Your task to perform on an android device: Go to Wikipedia Image 0: 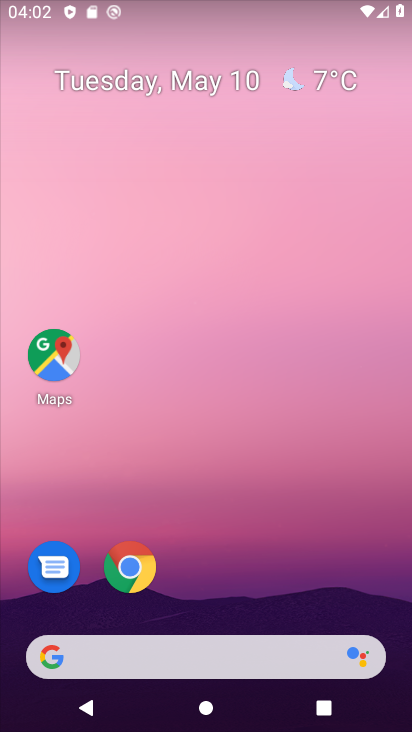
Step 0: click (129, 569)
Your task to perform on an android device: Go to Wikipedia Image 1: 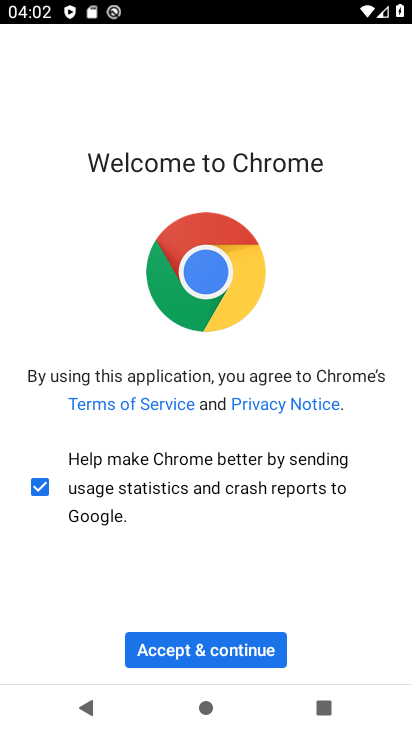
Step 1: click (197, 656)
Your task to perform on an android device: Go to Wikipedia Image 2: 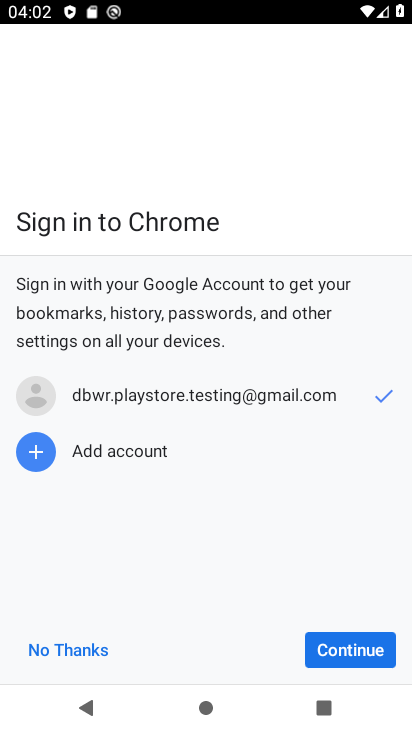
Step 2: click (334, 648)
Your task to perform on an android device: Go to Wikipedia Image 3: 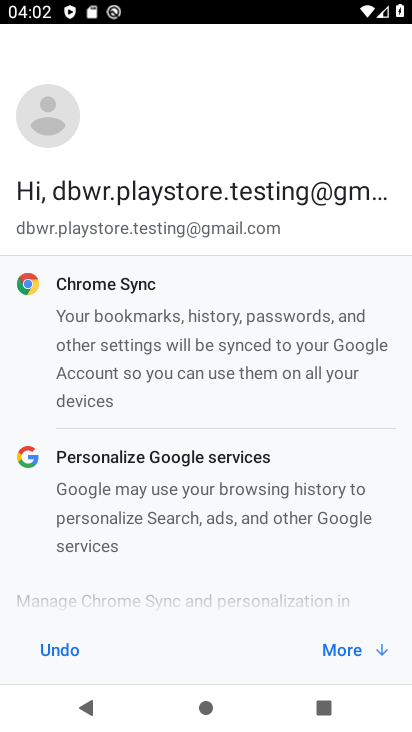
Step 3: click (334, 648)
Your task to perform on an android device: Go to Wikipedia Image 4: 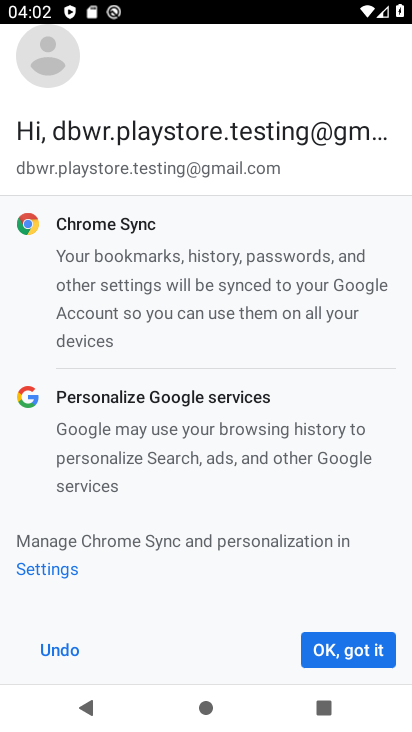
Step 4: click (334, 648)
Your task to perform on an android device: Go to Wikipedia Image 5: 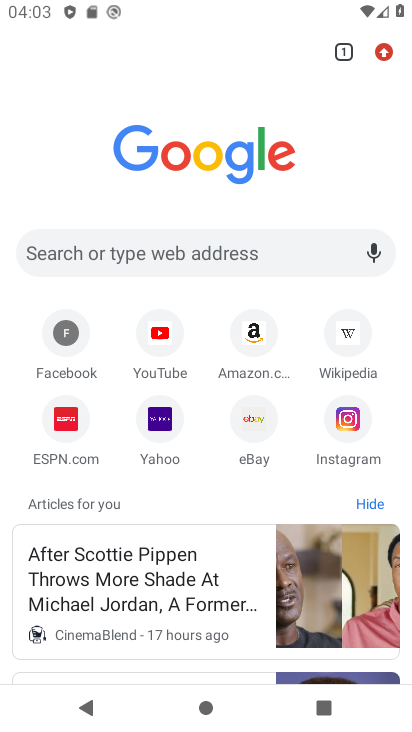
Step 5: click (352, 328)
Your task to perform on an android device: Go to Wikipedia Image 6: 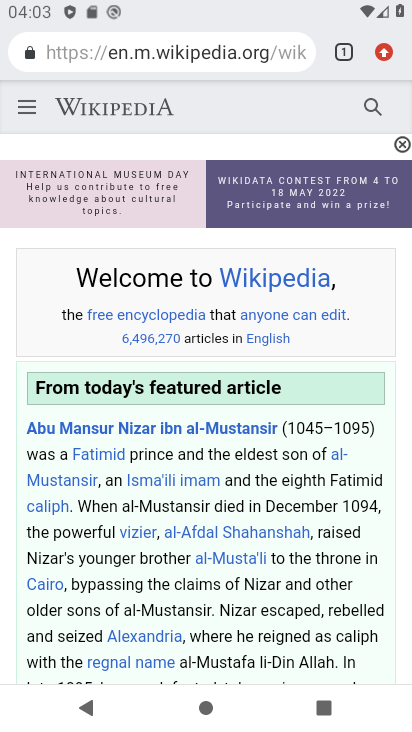
Step 6: task complete